Your task to perform on an android device: turn on sleep mode Image 0: 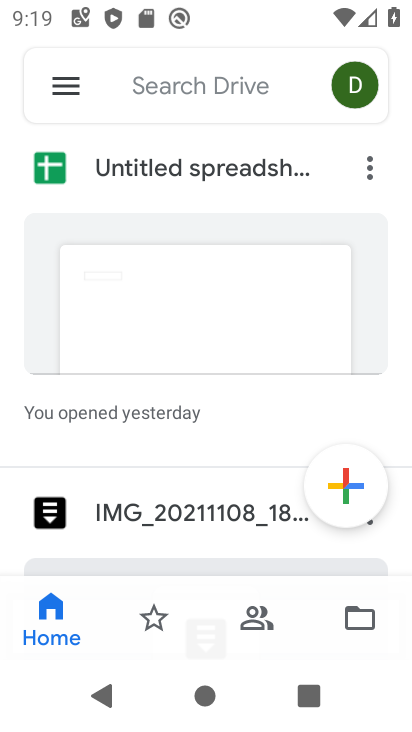
Step 0: press home button
Your task to perform on an android device: turn on sleep mode Image 1: 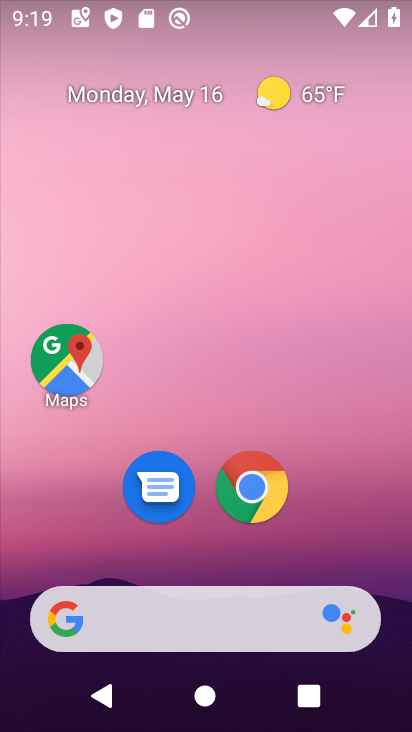
Step 1: drag from (333, 538) to (402, 141)
Your task to perform on an android device: turn on sleep mode Image 2: 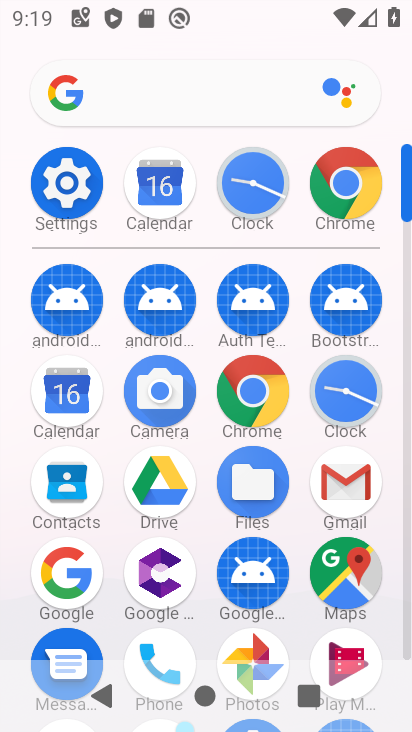
Step 2: click (79, 196)
Your task to perform on an android device: turn on sleep mode Image 3: 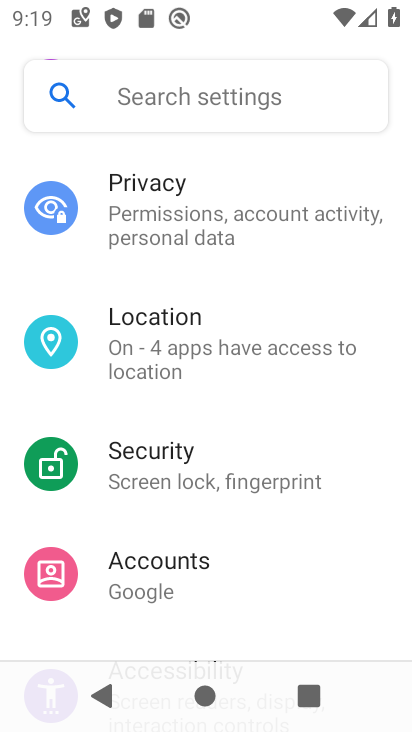
Step 3: drag from (361, 606) to (383, 357)
Your task to perform on an android device: turn on sleep mode Image 4: 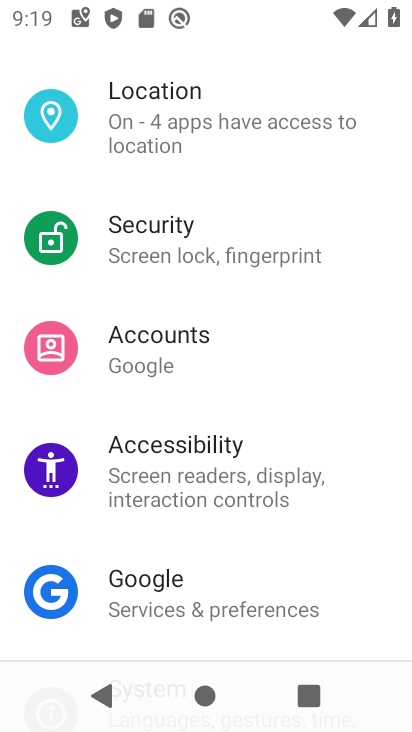
Step 4: drag from (359, 571) to (363, 389)
Your task to perform on an android device: turn on sleep mode Image 5: 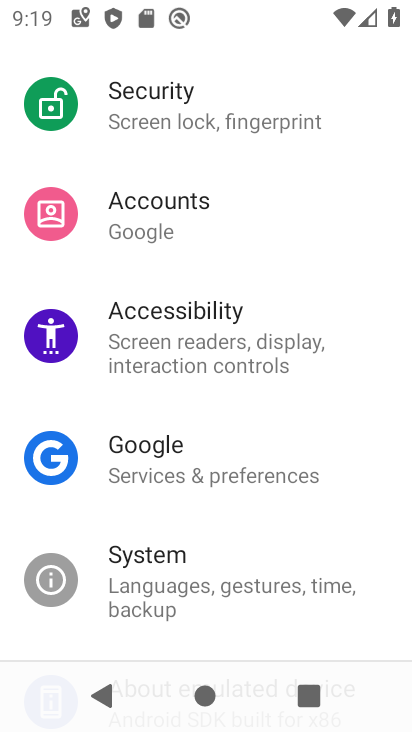
Step 5: drag from (335, 634) to (324, 454)
Your task to perform on an android device: turn on sleep mode Image 6: 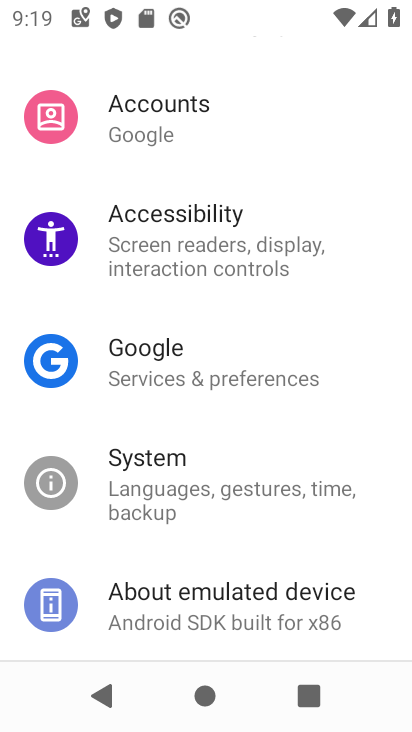
Step 6: drag from (333, 631) to (337, 454)
Your task to perform on an android device: turn on sleep mode Image 7: 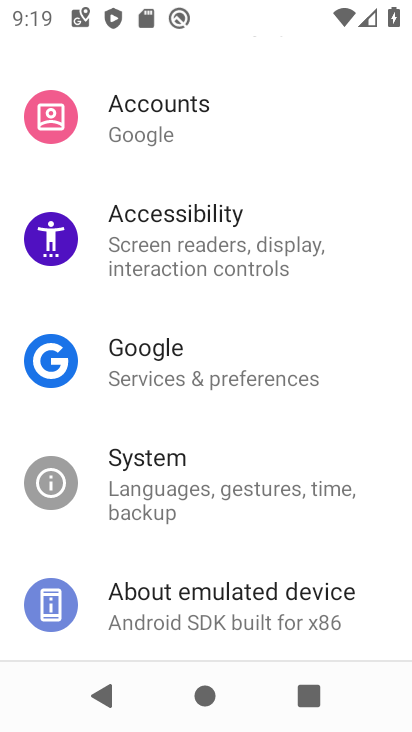
Step 7: drag from (372, 311) to (374, 448)
Your task to perform on an android device: turn on sleep mode Image 8: 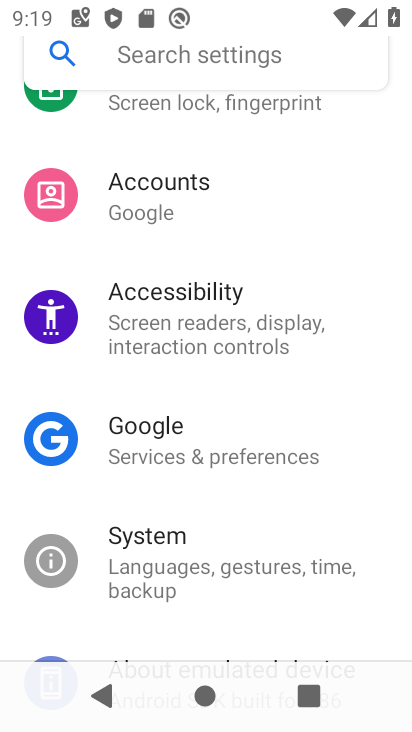
Step 8: drag from (378, 269) to (358, 422)
Your task to perform on an android device: turn on sleep mode Image 9: 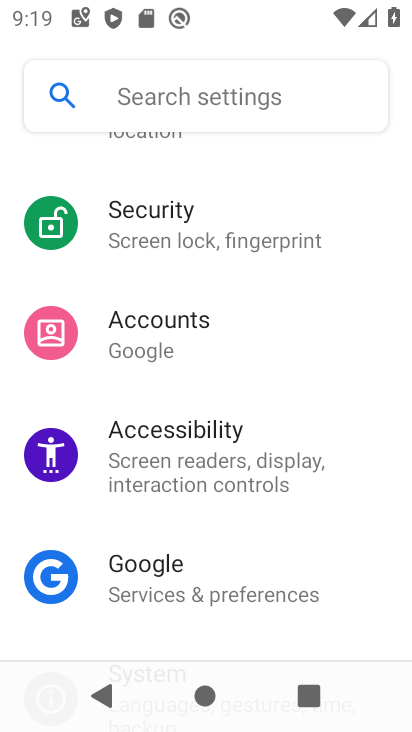
Step 9: drag from (372, 209) to (339, 412)
Your task to perform on an android device: turn on sleep mode Image 10: 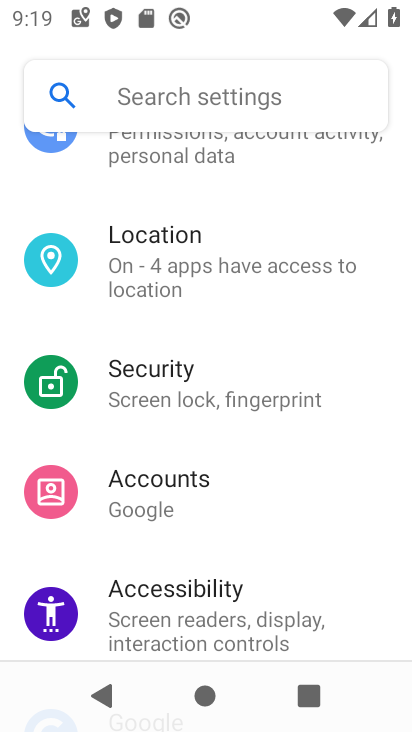
Step 10: drag from (345, 204) to (326, 401)
Your task to perform on an android device: turn on sleep mode Image 11: 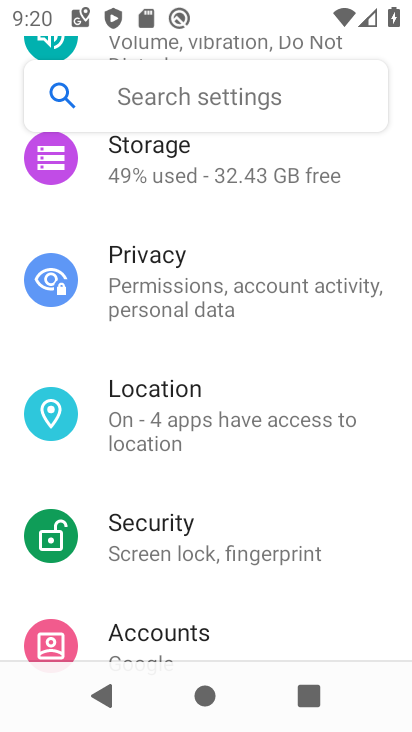
Step 11: drag from (317, 224) to (297, 370)
Your task to perform on an android device: turn on sleep mode Image 12: 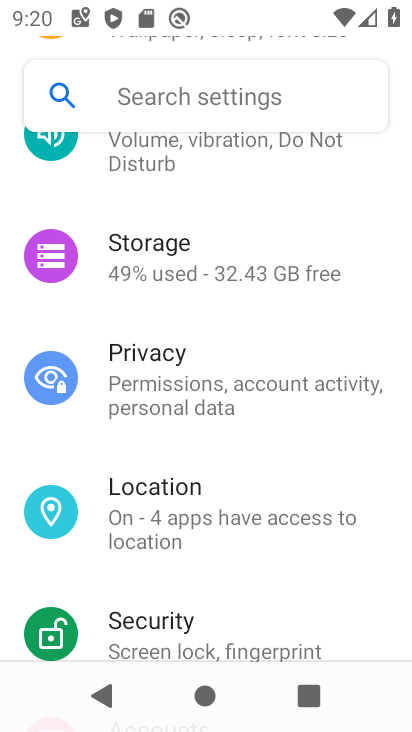
Step 12: drag from (326, 219) to (290, 377)
Your task to perform on an android device: turn on sleep mode Image 13: 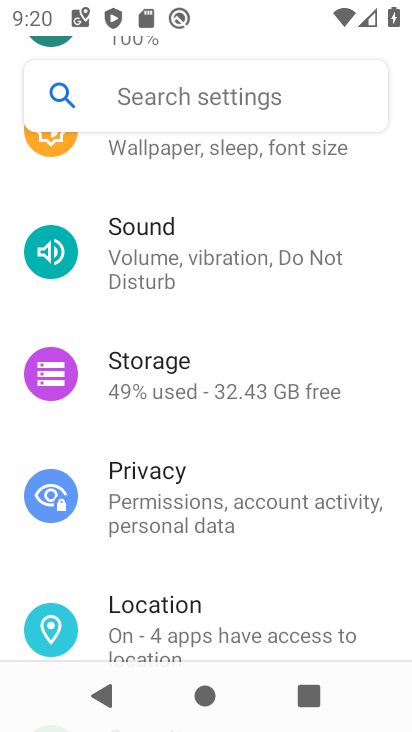
Step 13: drag from (298, 216) to (270, 400)
Your task to perform on an android device: turn on sleep mode Image 14: 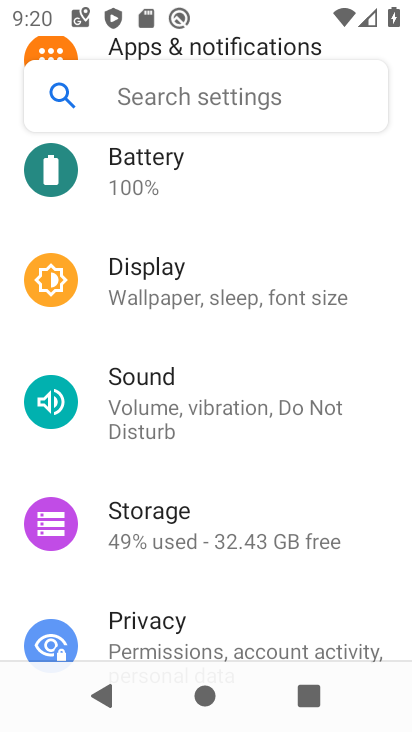
Step 14: drag from (338, 245) to (322, 375)
Your task to perform on an android device: turn on sleep mode Image 15: 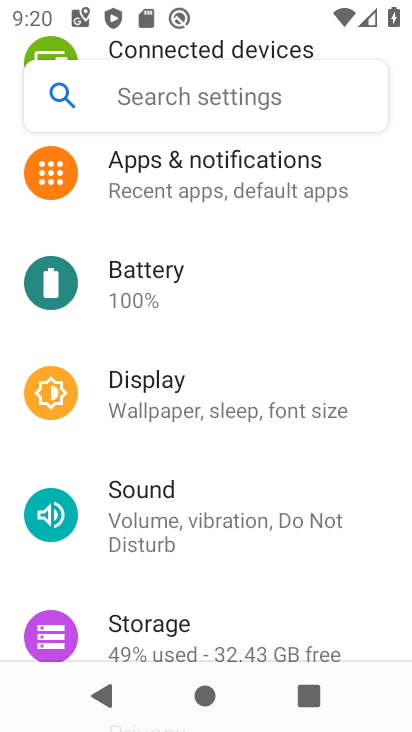
Step 15: click (265, 413)
Your task to perform on an android device: turn on sleep mode Image 16: 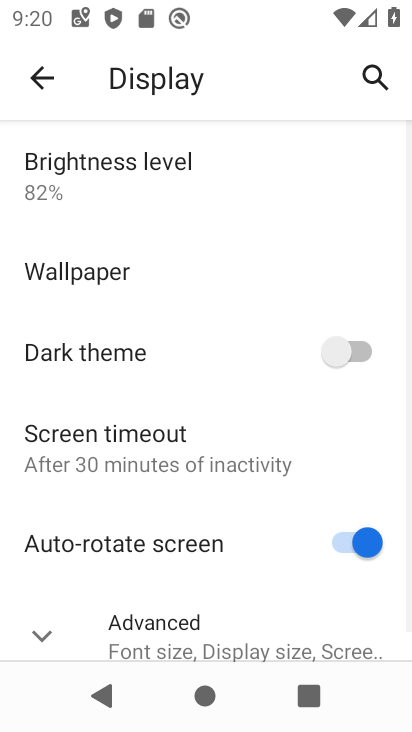
Step 16: click (166, 637)
Your task to perform on an android device: turn on sleep mode Image 17: 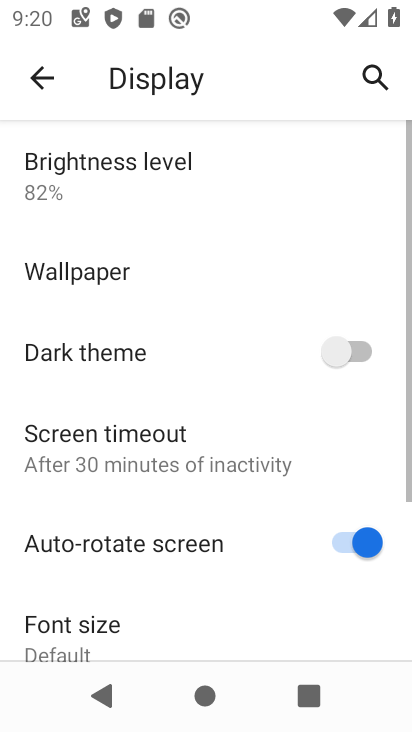
Step 17: task complete